Your task to perform on an android device: toggle improve location accuracy Image 0: 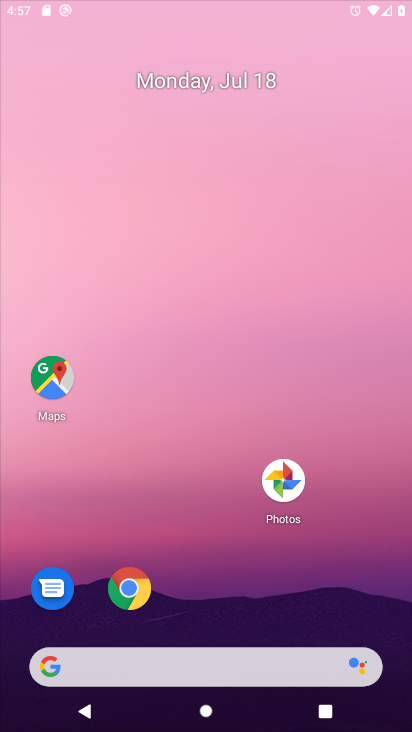
Step 0: click (234, 240)
Your task to perform on an android device: toggle improve location accuracy Image 1: 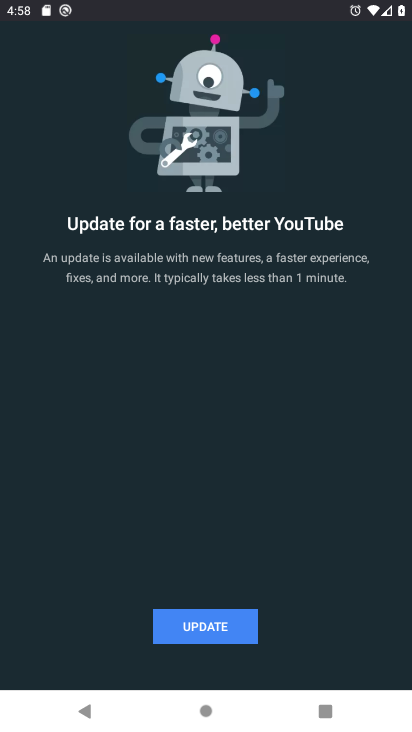
Step 1: press home button
Your task to perform on an android device: toggle improve location accuracy Image 2: 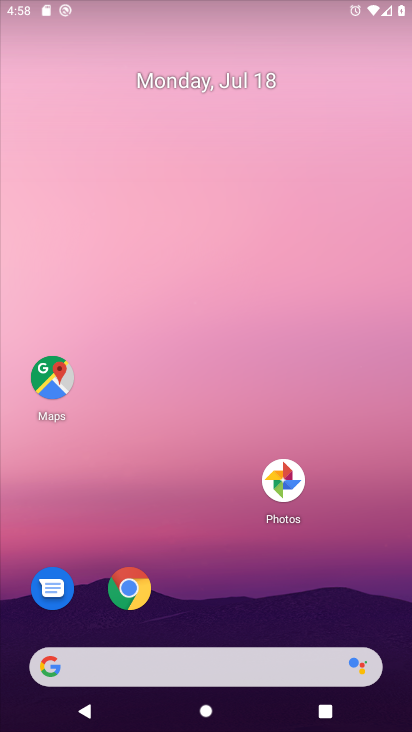
Step 2: drag from (230, 660) to (137, 52)
Your task to perform on an android device: toggle improve location accuracy Image 3: 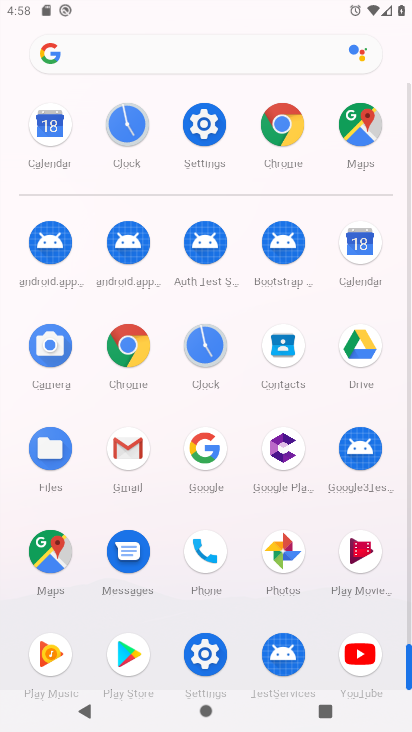
Step 3: click (200, 687)
Your task to perform on an android device: toggle improve location accuracy Image 4: 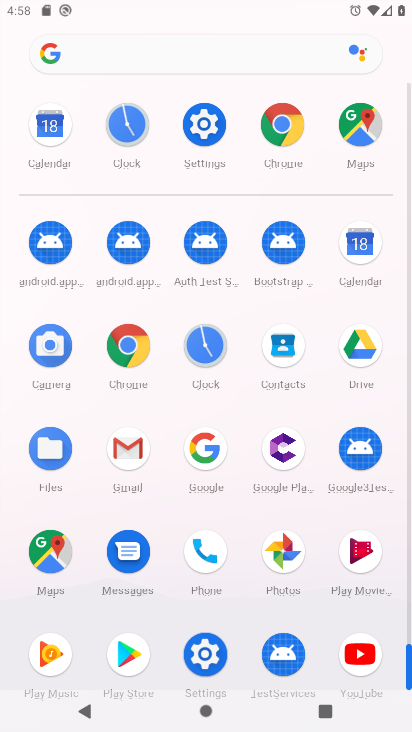
Step 4: click (195, 634)
Your task to perform on an android device: toggle improve location accuracy Image 5: 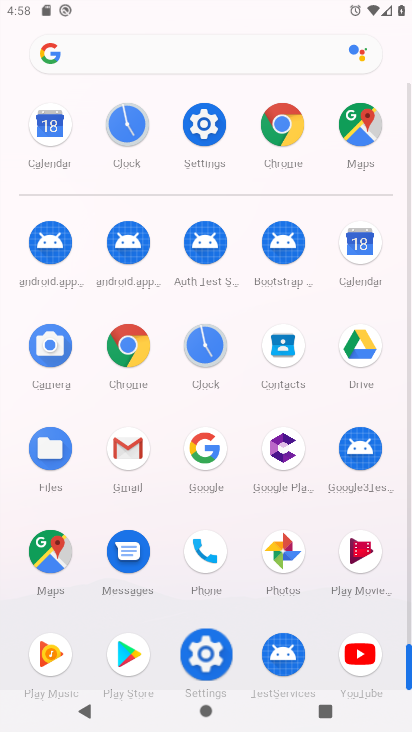
Step 5: click (201, 633)
Your task to perform on an android device: toggle improve location accuracy Image 6: 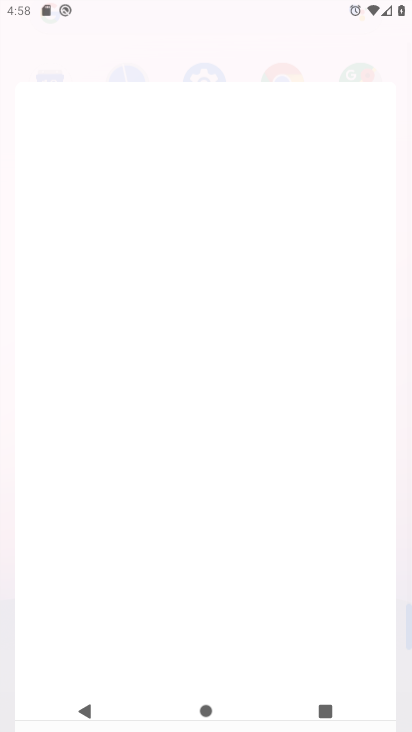
Step 6: click (202, 637)
Your task to perform on an android device: toggle improve location accuracy Image 7: 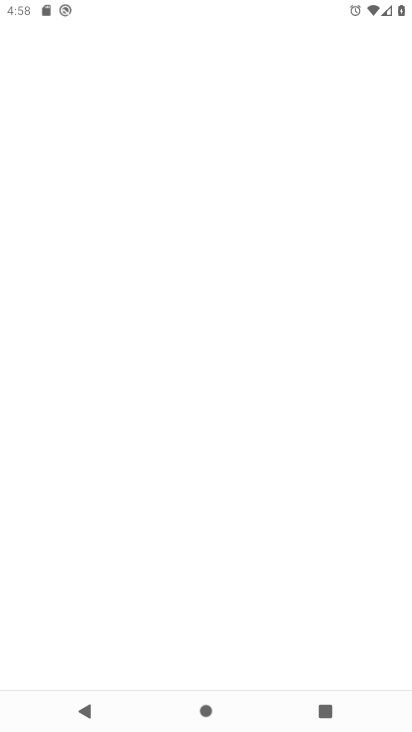
Step 7: click (201, 637)
Your task to perform on an android device: toggle improve location accuracy Image 8: 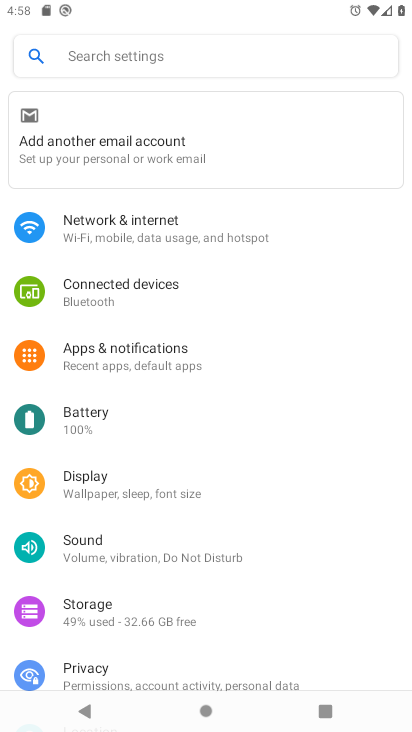
Step 8: drag from (137, 528) to (137, 303)
Your task to perform on an android device: toggle improve location accuracy Image 9: 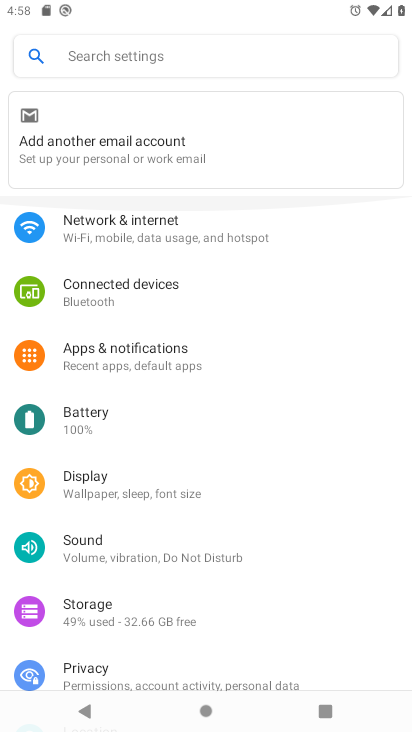
Step 9: drag from (119, 488) to (99, 347)
Your task to perform on an android device: toggle improve location accuracy Image 10: 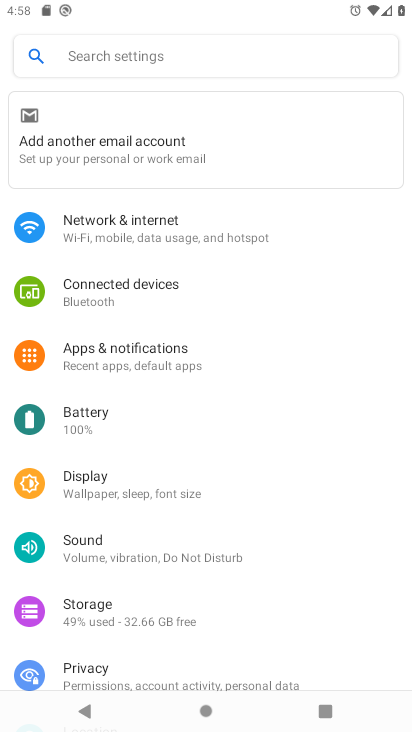
Step 10: drag from (96, 470) to (96, 329)
Your task to perform on an android device: toggle improve location accuracy Image 11: 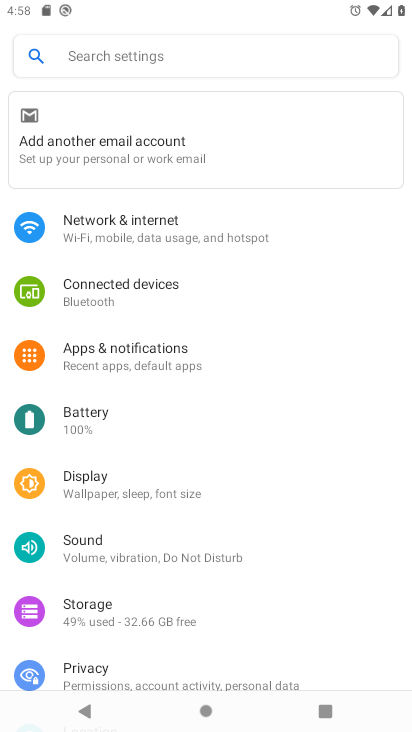
Step 11: drag from (156, 554) to (87, 99)
Your task to perform on an android device: toggle improve location accuracy Image 12: 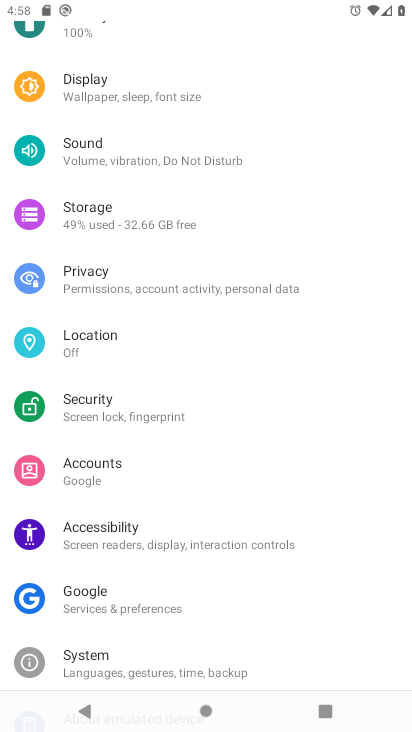
Step 12: drag from (122, 306) to (113, 176)
Your task to perform on an android device: toggle improve location accuracy Image 13: 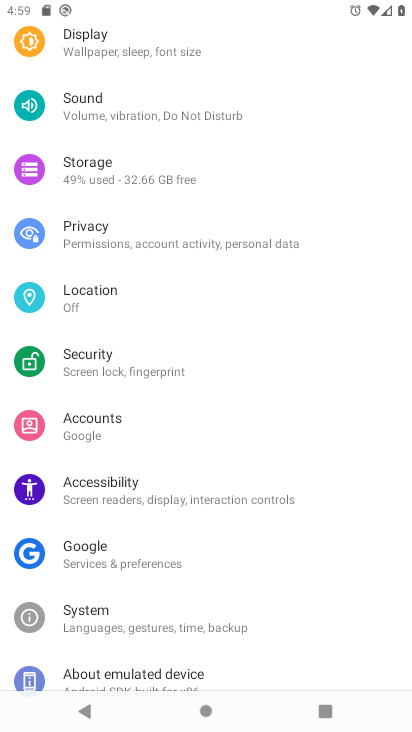
Step 13: click (85, 278)
Your task to perform on an android device: toggle improve location accuracy Image 14: 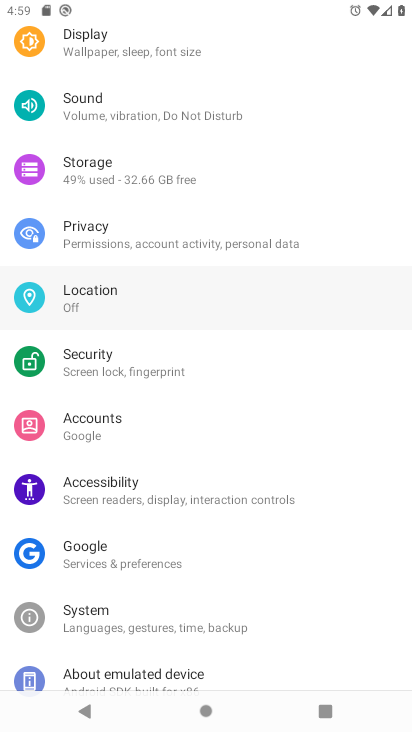
Step 14: click (88, 299)
Your task to perform on an android device: toggle improve location accuracy Image 15: 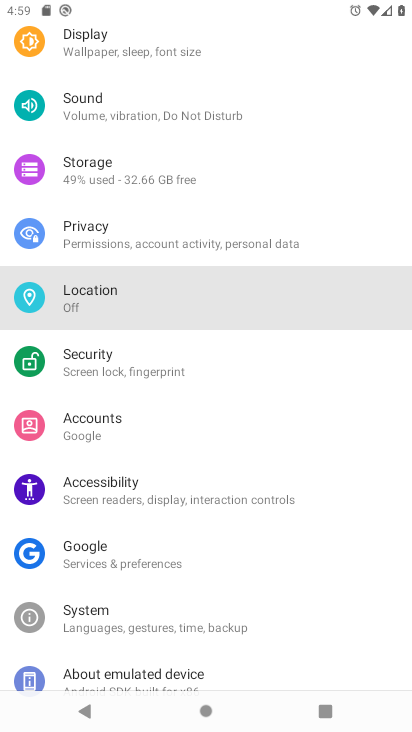
Step 15: click (88, 299)
Your task to perform on an android device: toggle improve location accuracy Image 16: 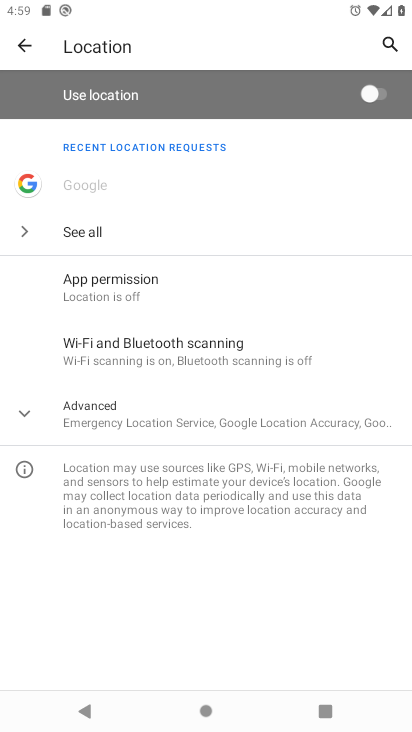
Step 16: click (95, 406)
Your task to perform on an android device: toggle improve location accuracy Image 17: 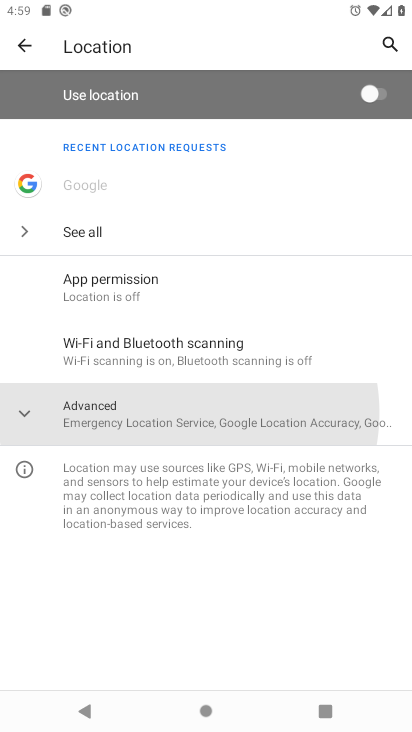
Step 17: click (95, 405)
Your task to perform on an android device: toggle improve location accuracy Image 18: 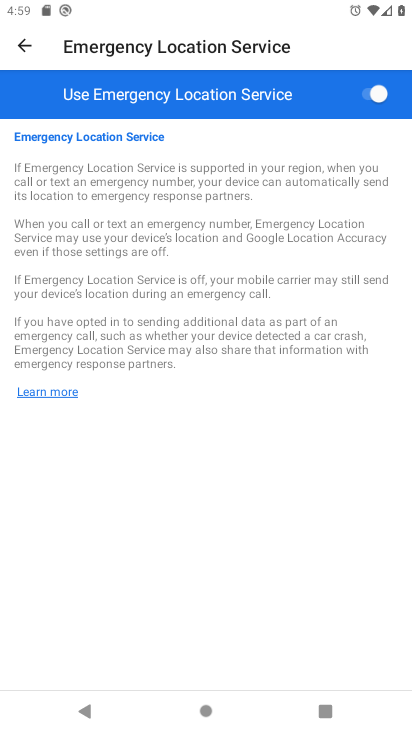
Step 18: click (23, 34)
Your task to perform on an android device: toggle improve location accuracy Image 19: 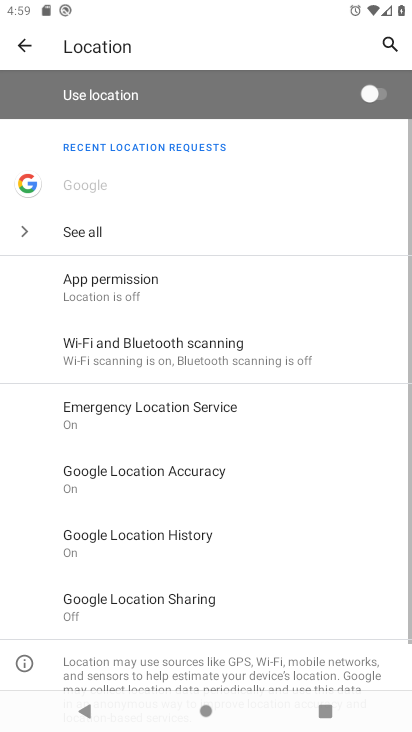
Step 19: click (190, 476)
Your task to perform on an android device: toggle improve location accuracy Image 20: 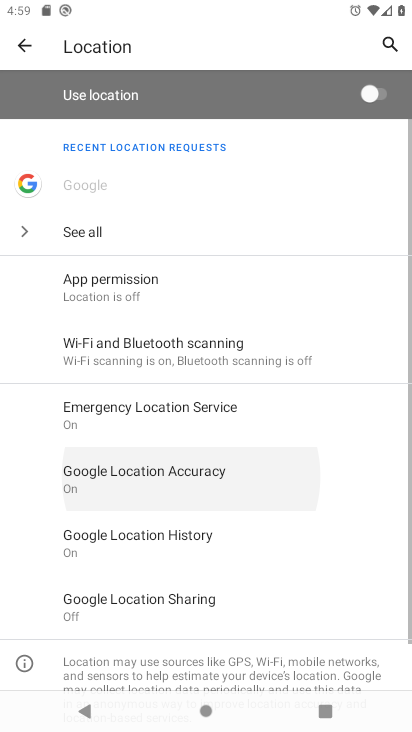
Step 20: click (192, 480)
Your task to perform on an android device: toggle improve location accuracy Image 21: 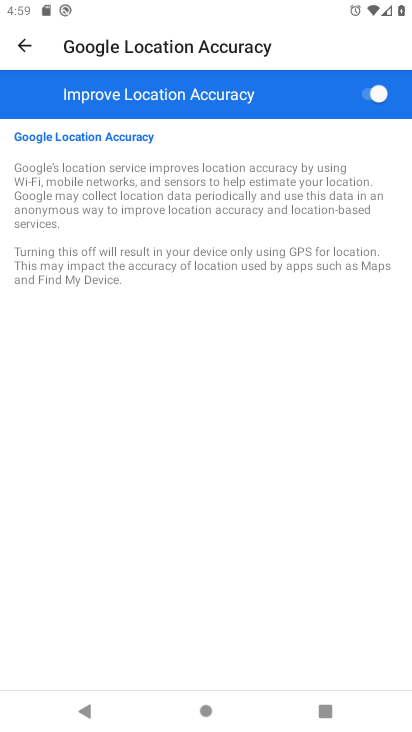
Step 21: task complete